Your task to perform on an android device: Show me popular games on the Play Store Image 0: 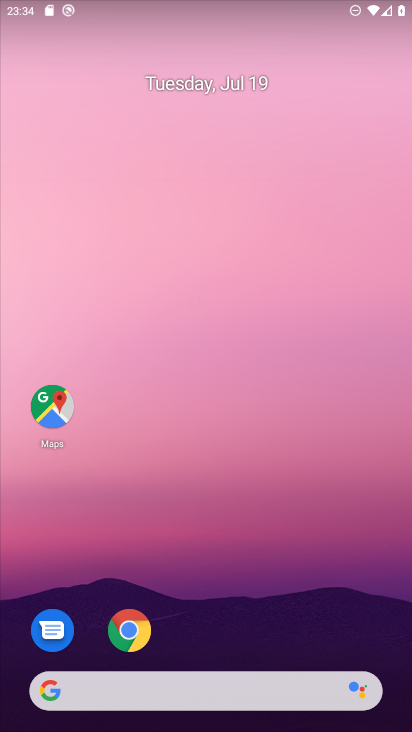
Step 0: drag from (256, 547) to (253, 147)
Your task to perform on an android device: Show me popular games on the Play Store Image 1: 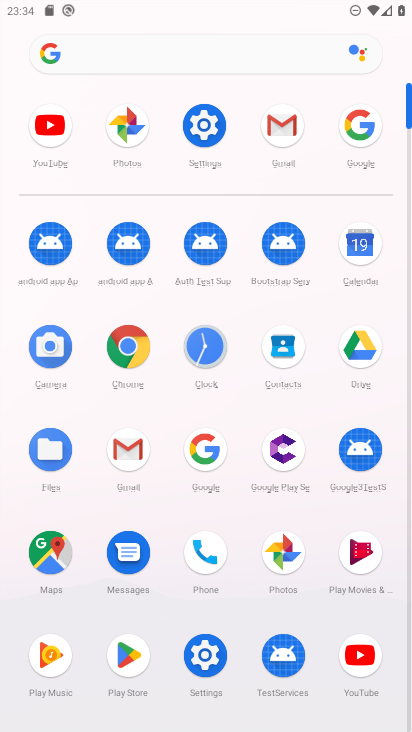
Step 1: click (137, 664)
Your task to perform on an android device: Show me popular games on the Play Store Image 2: 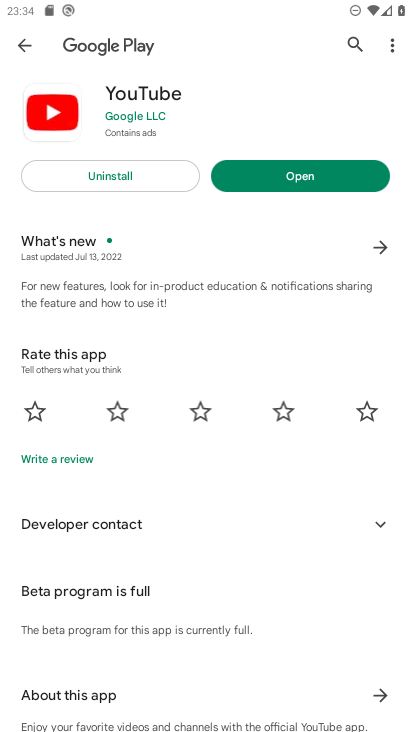
Step 2: click (22, 40)
Your task to perform on an android device: Show me popular games on the Play Store Image 3: 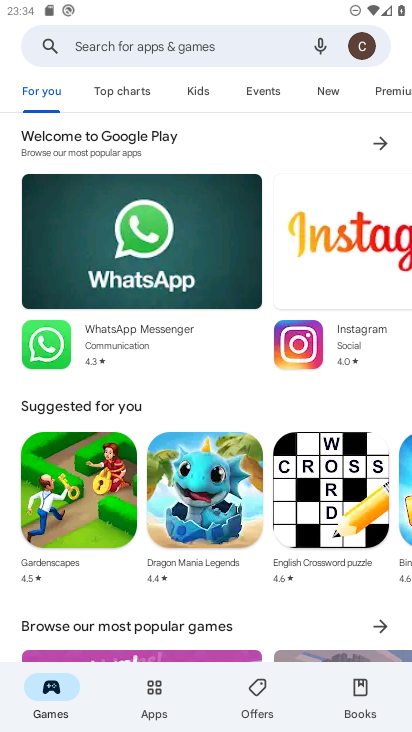
Step 3: click (105, 87)
Your task to perform on an android device: Show me popular games on the Play Store Image 4: 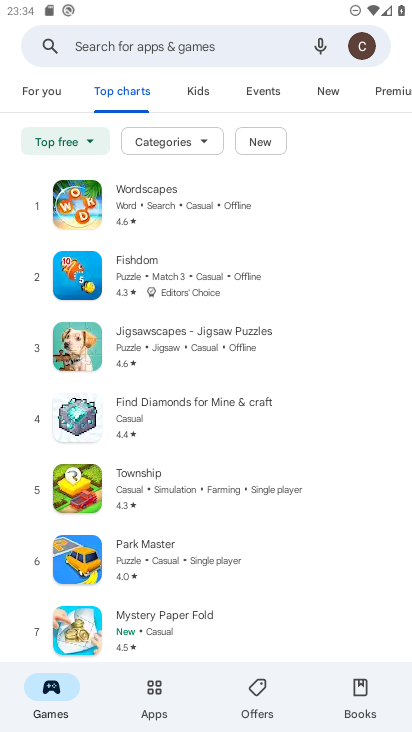
Step 4: task complete